Your task to perform on an android device: Do I have any events this weekend? Image 0: 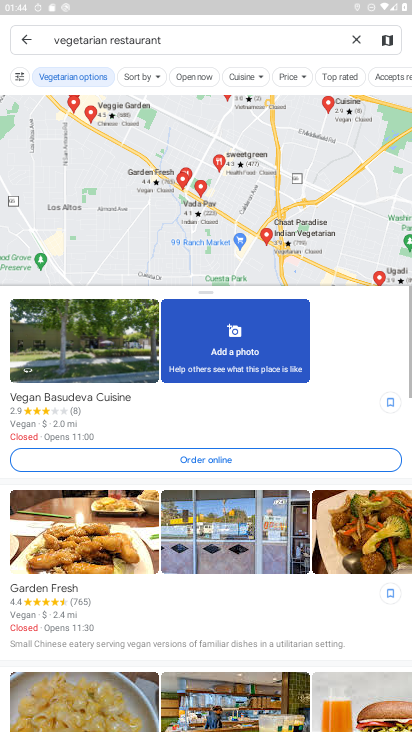
Step 0: press home button
Your task to perform on an android device: Do I have any events this weekend? Image 1: 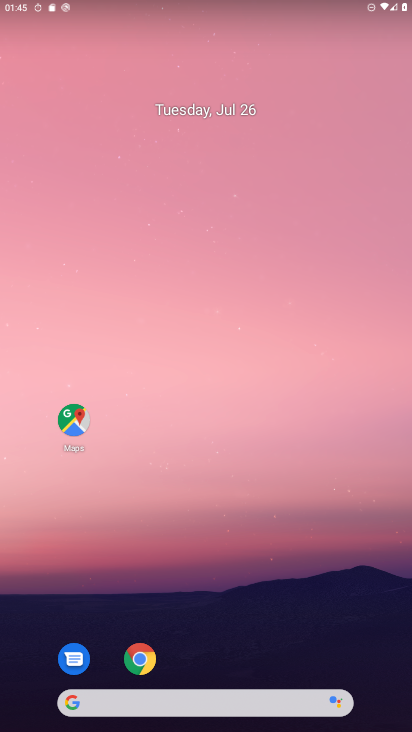
Step 1: drag from (85, 587) to (245, 71)
Your task to perform on an android device: Do I have any events this weekend? Image 2: 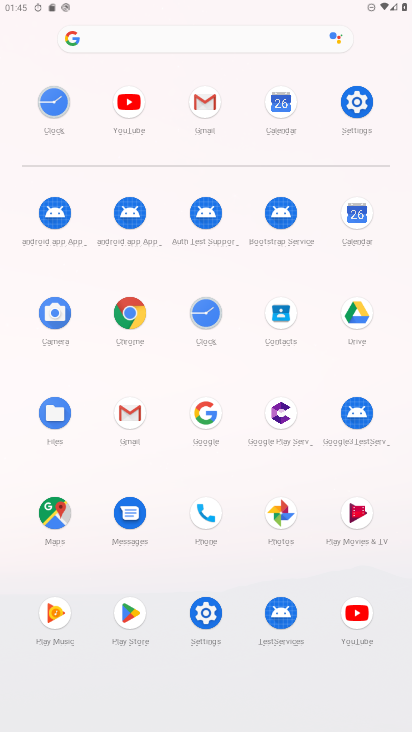
Step 2: click (350, 225)
Your task to perform on an android device: Do I have any events this weekend? Image 3: 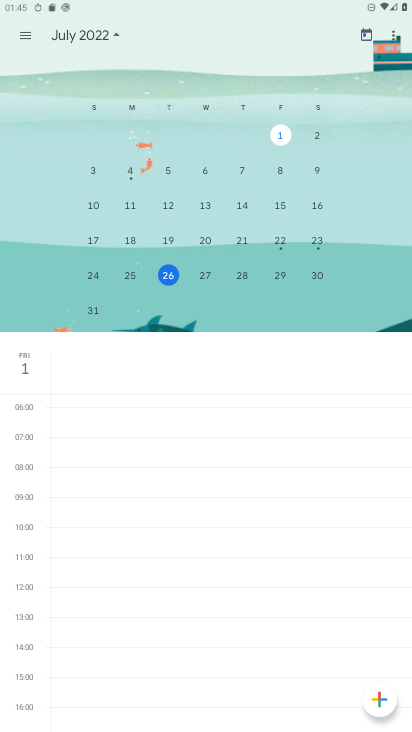
Step 3: task complete